Your task to perform on an android device: see sites visited before in the chrome app Image 0: 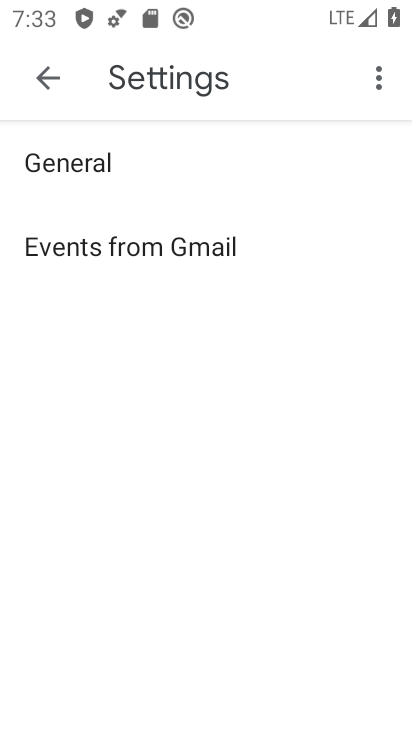
Step 0: press home button
Your task to perform on an android device: see sites visited before in the chrome app Image 1: 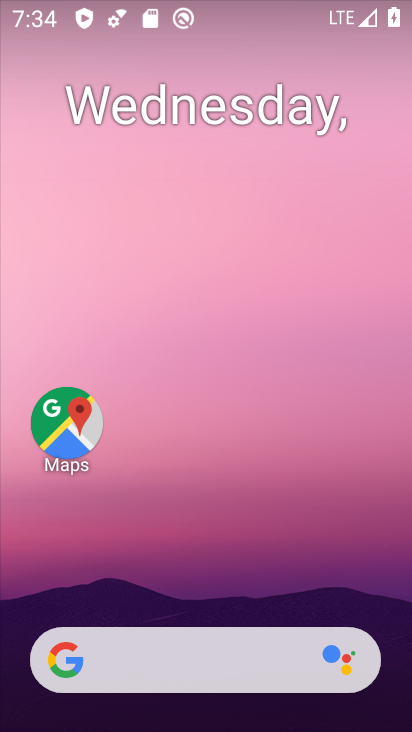
Step 1: drag from (182, 620) to (158, 46)
Your task to perform on an android device: see sites visited before in the chrome app Image 2: 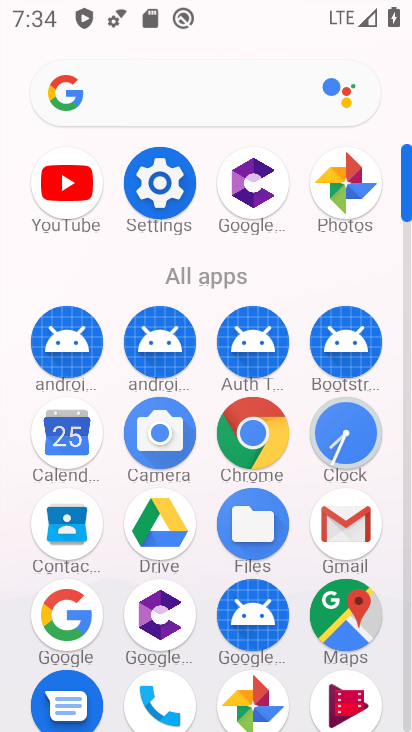
Step 2: click (256, 447)
Your task to perform on an android device: see sites visited before in the chrome app Image 3: 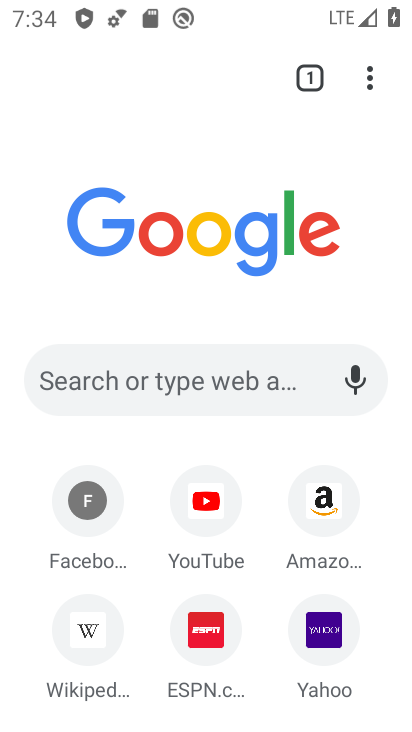
Step 3: click (369, 84)
Your task to perform on an android device: see sites visited before in the chrome app Image 4: 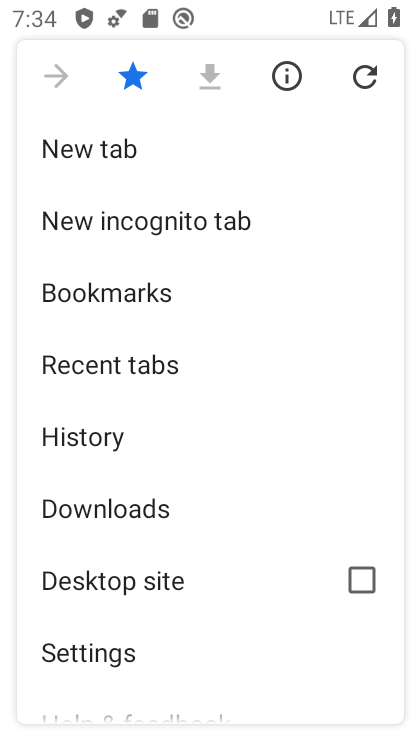
Step 4: click (61, 425)
Your task to perform on an android device: see sites visited before in the chrome app Image 5: 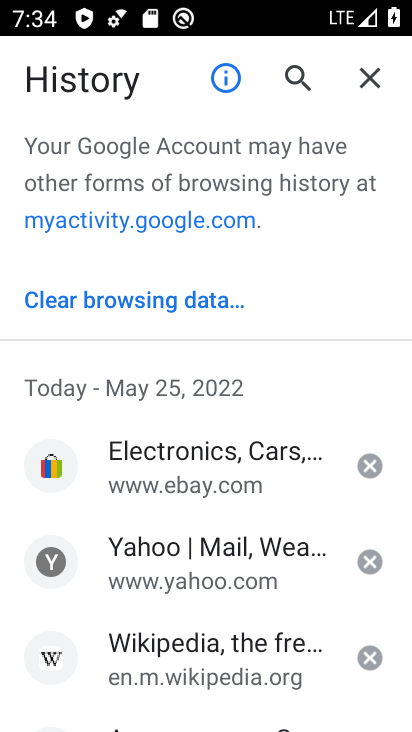
Step 5: task complete